Your task to perform on an android device: change the clock style Image 0: 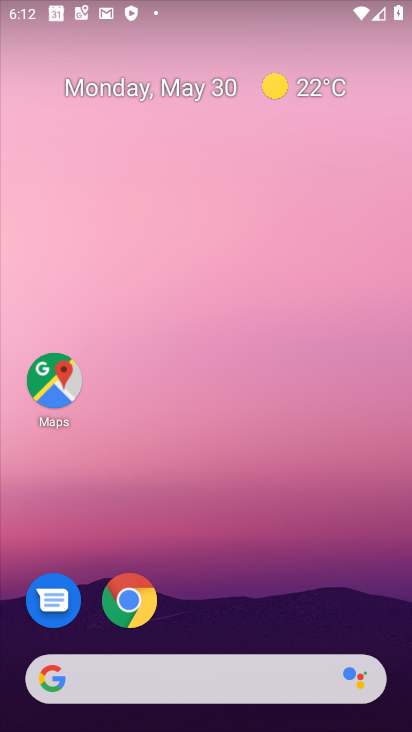
Step 0: press home button
Your task to perform on an android device: change the clock style Image 1: 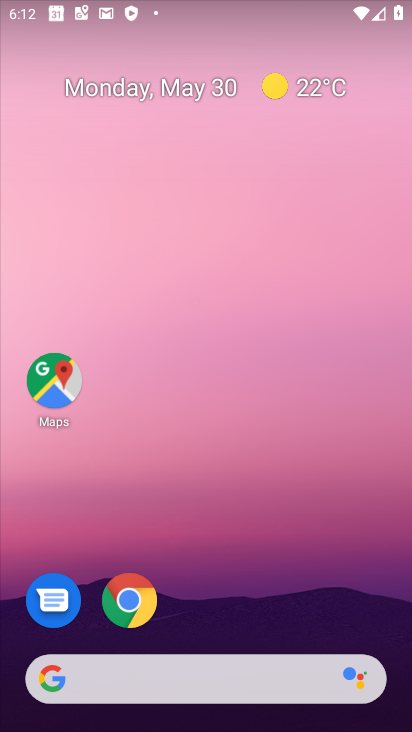
Step 1: drag from (231, 626) to (233, 85)
Your task to perform on an android device: change the clock style Image 2: 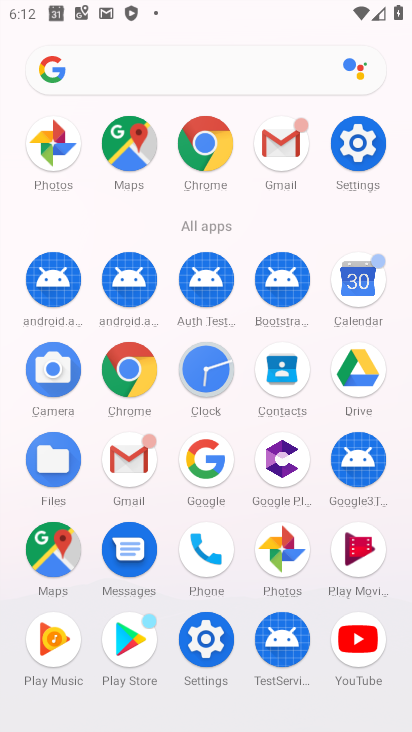
Step 2: click (199, 379)
Your task to perform on an android device: change the clock style Image 3: 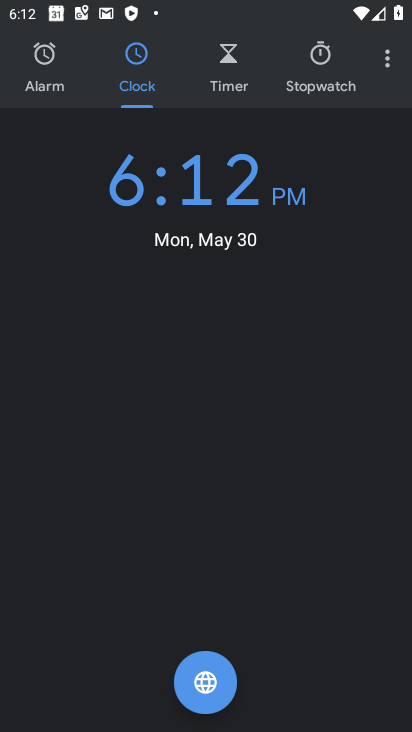
Step 3: click (383, 74)
Your task to perform on an android device: change the clock style Image 4: 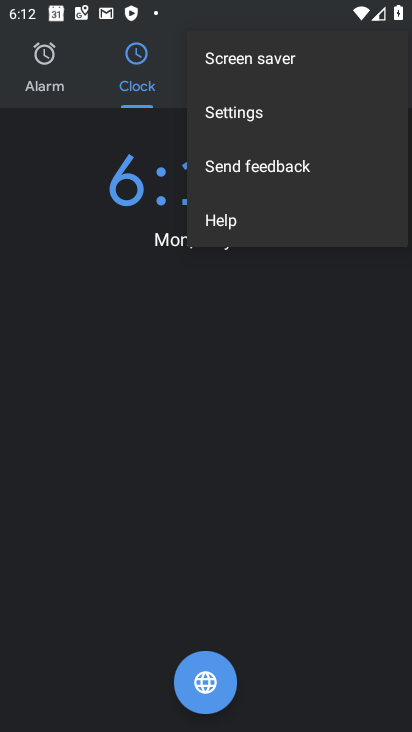
Step 4: click (230, 116)
Your task to perform on an android device: change the clock style Image 5: 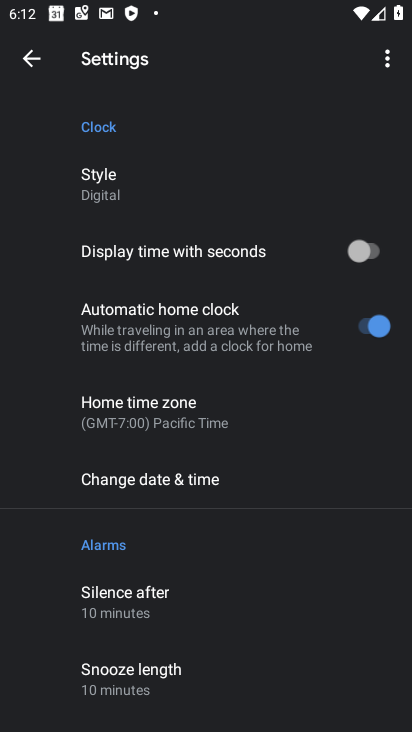
Step 5: click (102, 198)
Your task to perform on an android device: change the clock style Image 6: 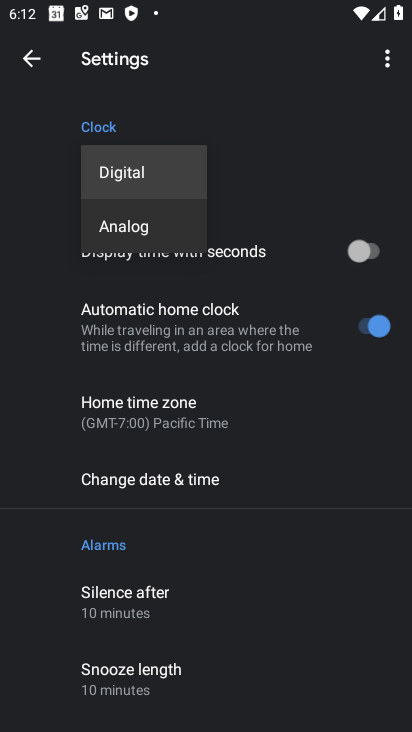
Step 6: click (121, 232)
Your task to perform on an android device: change the clock style Image 7: 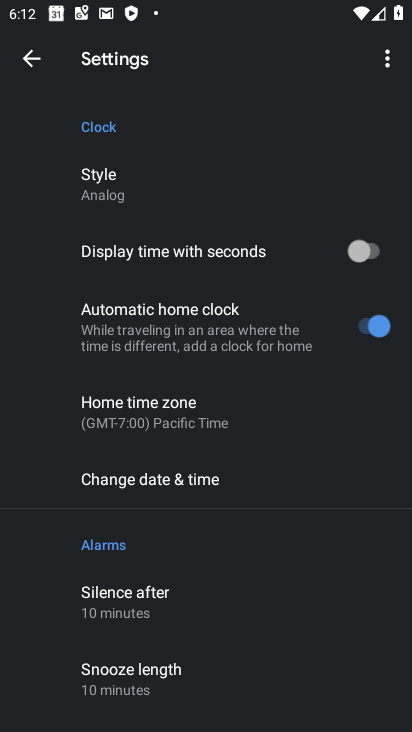
Step 7: task complete